Your task to perform on an android device: turn vacation reply on in the gmail app Image 0: 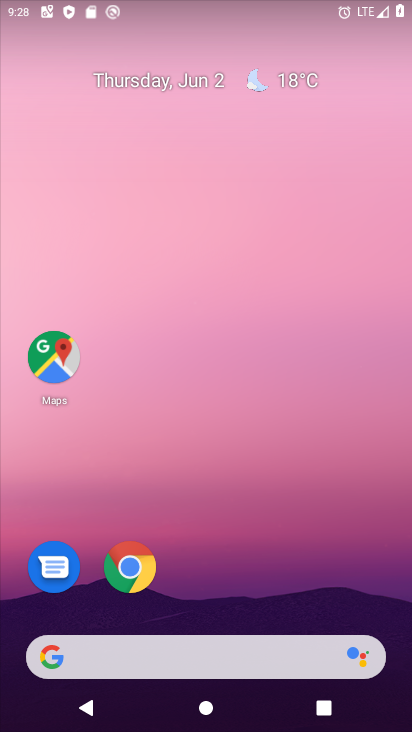
Step 0: press home button
Your task to perform on an android device: turn vacation reply on in the gmail app Image 1: 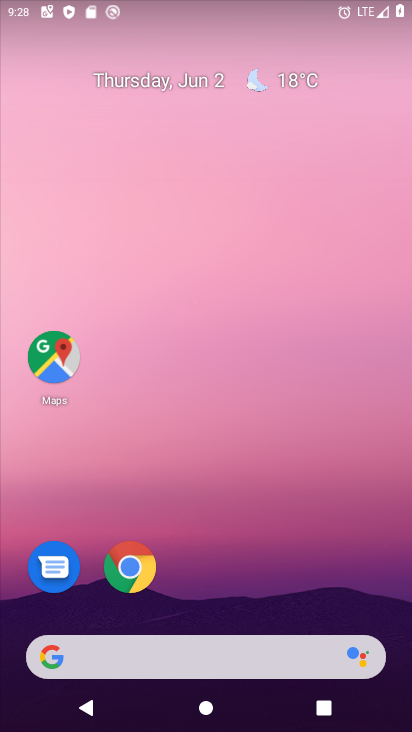
Step 1: drag from (216, 611) to (200, 168)
Your task to perform on an android device: turn vacation reply on in the gmail app Image 2: 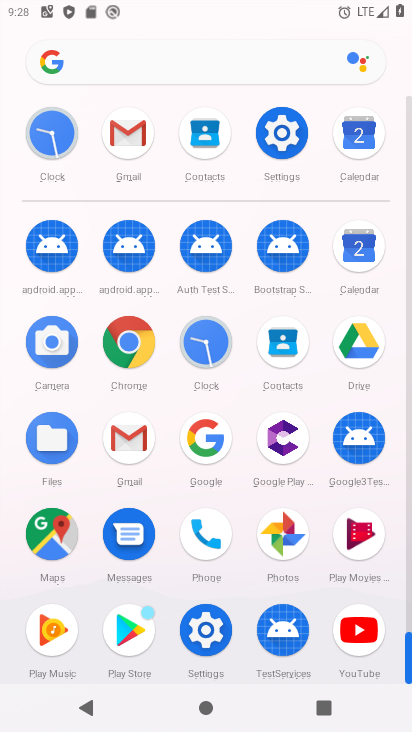
Step 2: click (123, 131)
Your task to perform on an android device: turn vacation reply on in the gmail app Image 3: 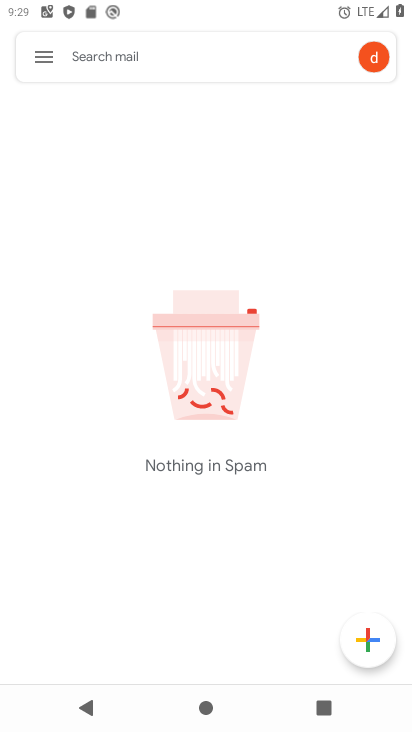
Step 3: click (40, 55)
Your task to perform on an android device: turn vacation reply on in the gmail app Image 4: 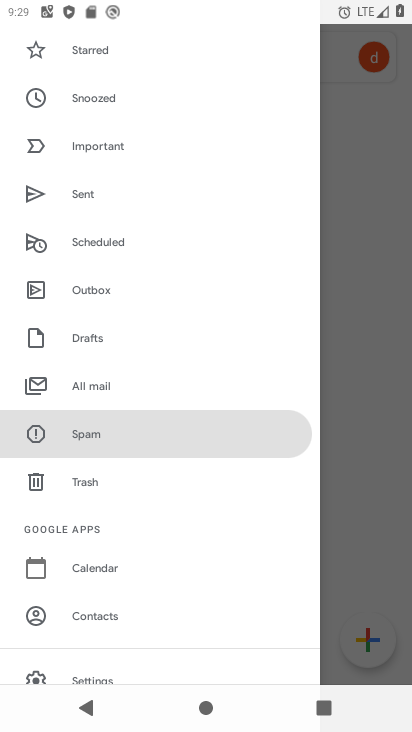
Step 4: click (139, 666)
Your task to perform on an android device: turn vacation reply on in the gmail app Image 5: 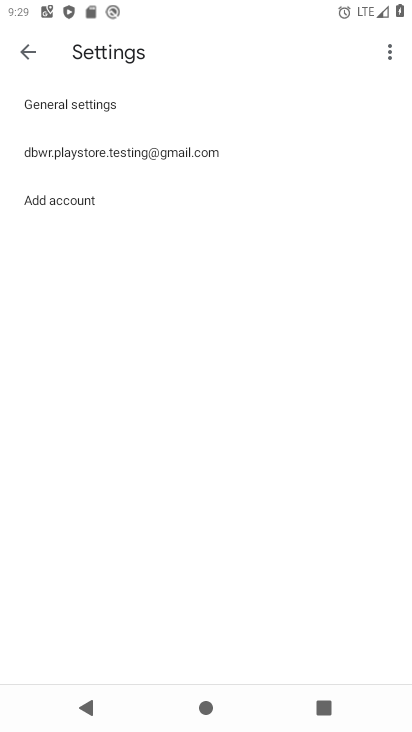
Step 5: click (119, 151)
Your task to perform on an android device: turn vacation reply on in the gmail app Image 6: 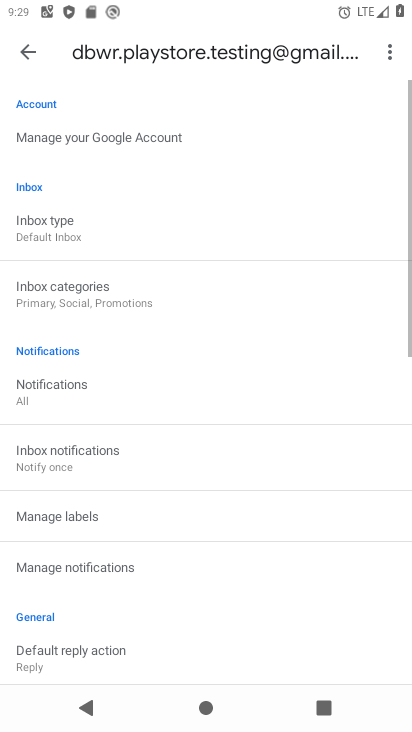
Step 6: drag from (152, 594) to (160, 211)
Your task to perform on an android device: turn vacation reply on in the gmail app Image 7: 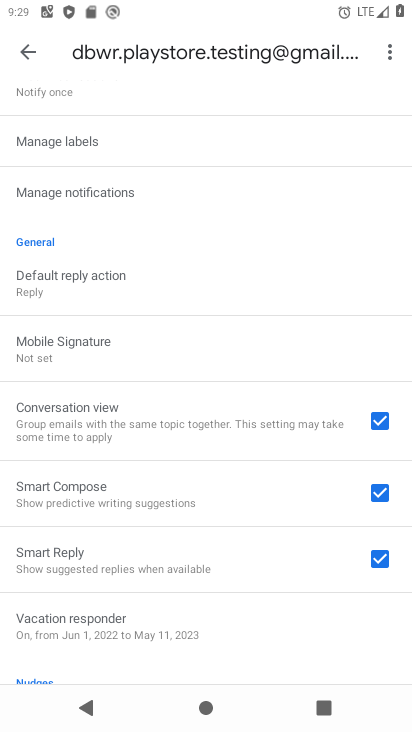
Step 7: click (168, 634)
Your task to perform on an android device: turn vacation reply on in the gmail app Image 8: 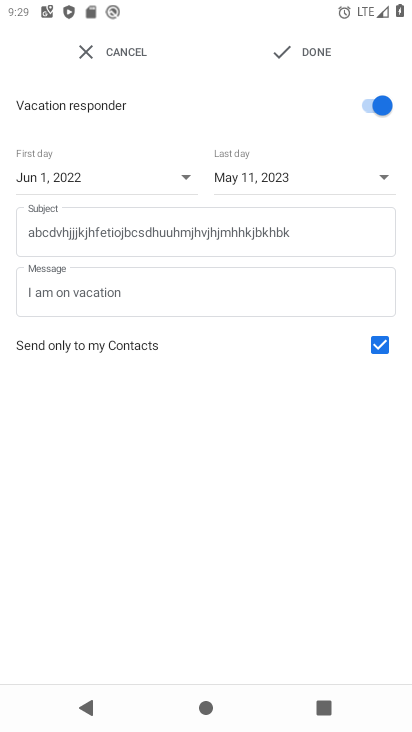
Step 8: task complete